Your task to perform on an android device: turn off notifications settings in the gmail app Image 0: 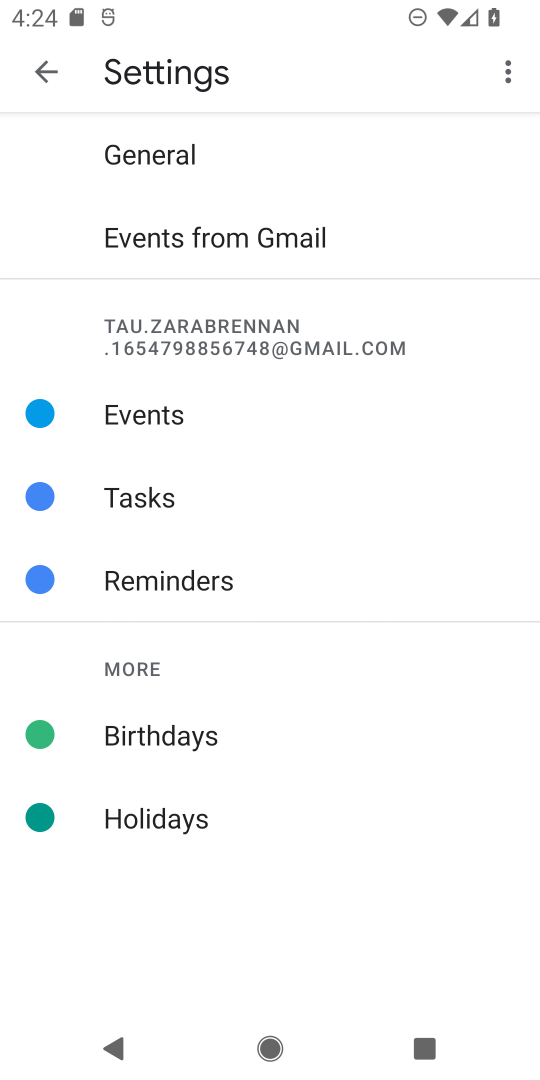
Step 0: press home button
Your task to perform on an android device: turn off notifications settings in the gmail app Image 1: 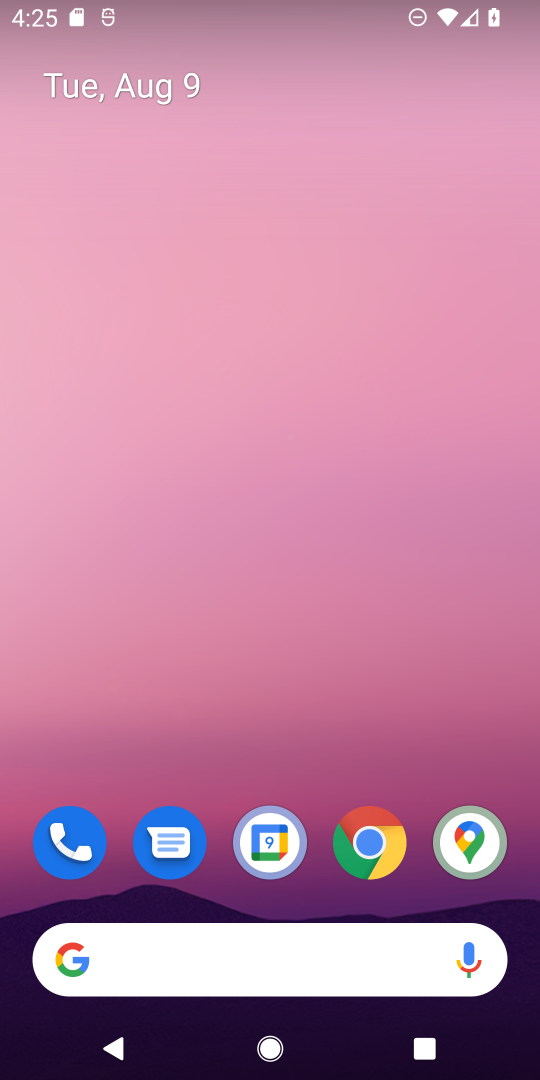
Step 1: drag from (285, 941) to (373, 187)
Your task to perform on an android device: turn off notifications settings in the gmail app Image 2: 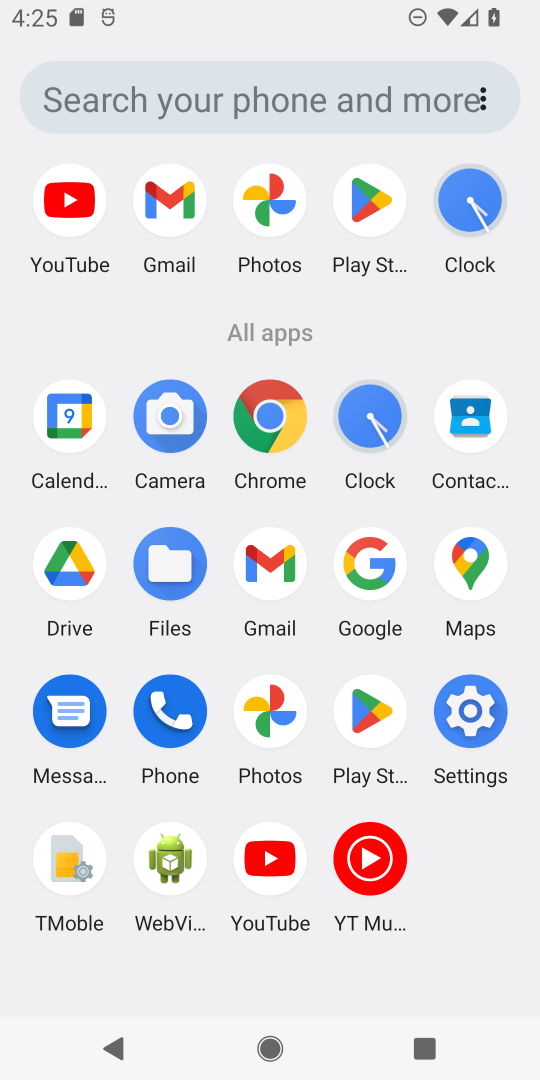
Step 2: click (277, 568)
Your task to perform on an android device: turn off notifications settings in the gmail app Image 3: 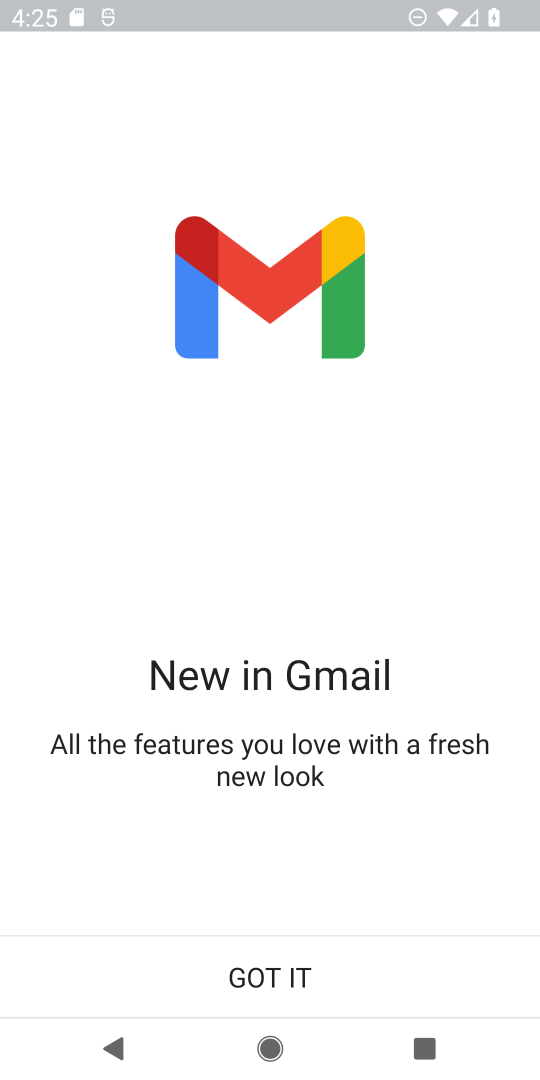
Step 3: click (315, 967)
Your task to perform on an android device: turn off notifications settings in the gmail app Image 4: 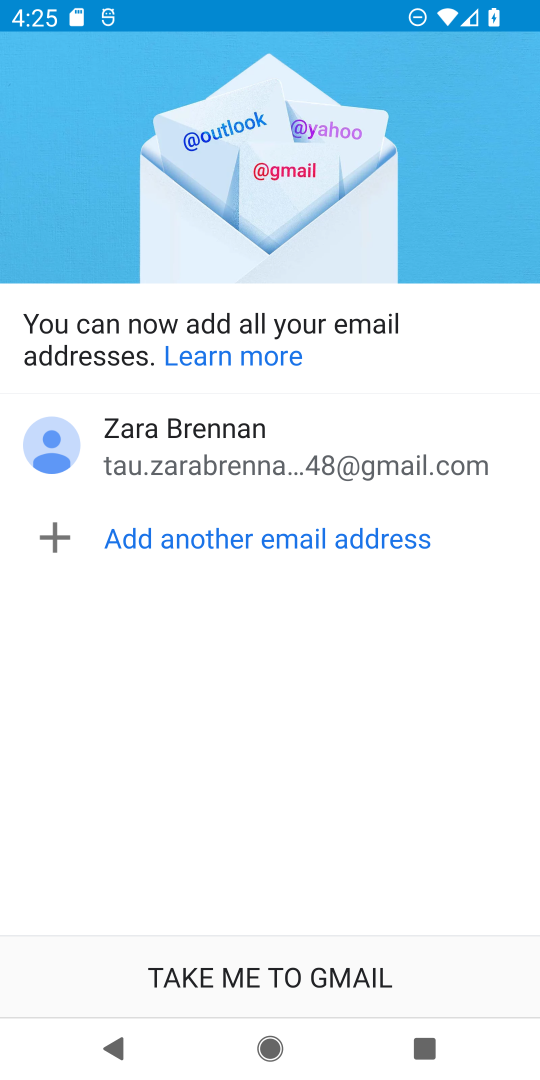
Step 4: click (315, 967)
Your task to perform on an android device: turn off notifications settings in the gmail app Image 5: 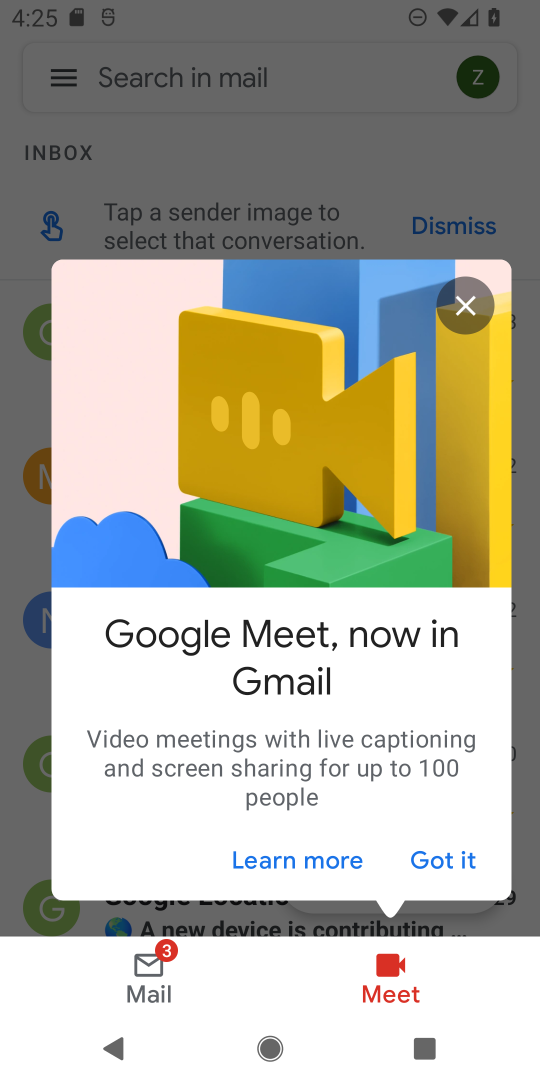
Step 5: click (464, 289)
Your task to perform on an android device: turn off notifications settings in the gmail app Image 6: 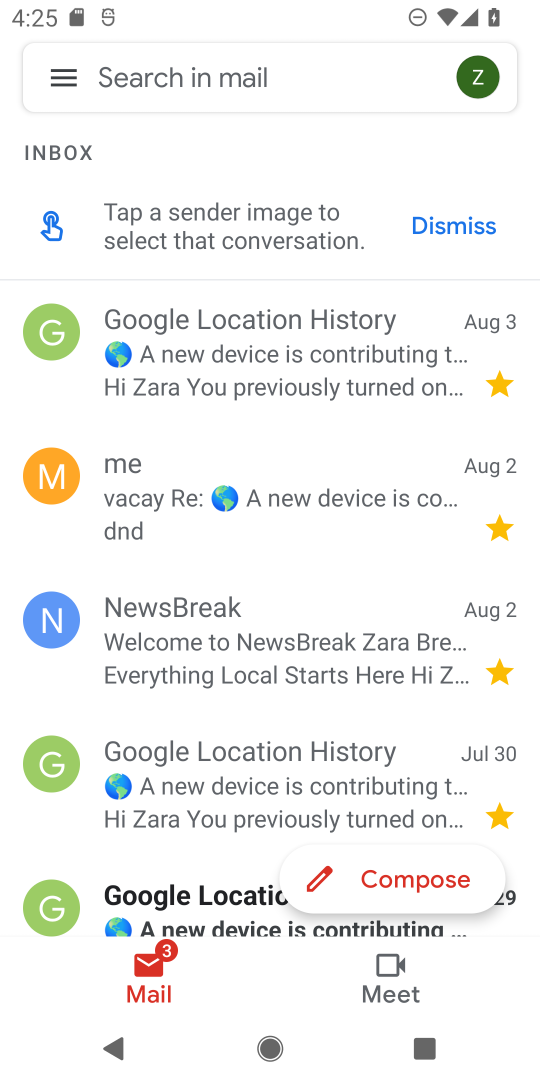
Step 6: click (77, 76)
Your task to perform on an android device: turn off notifications settings in the gmail app Image 7: 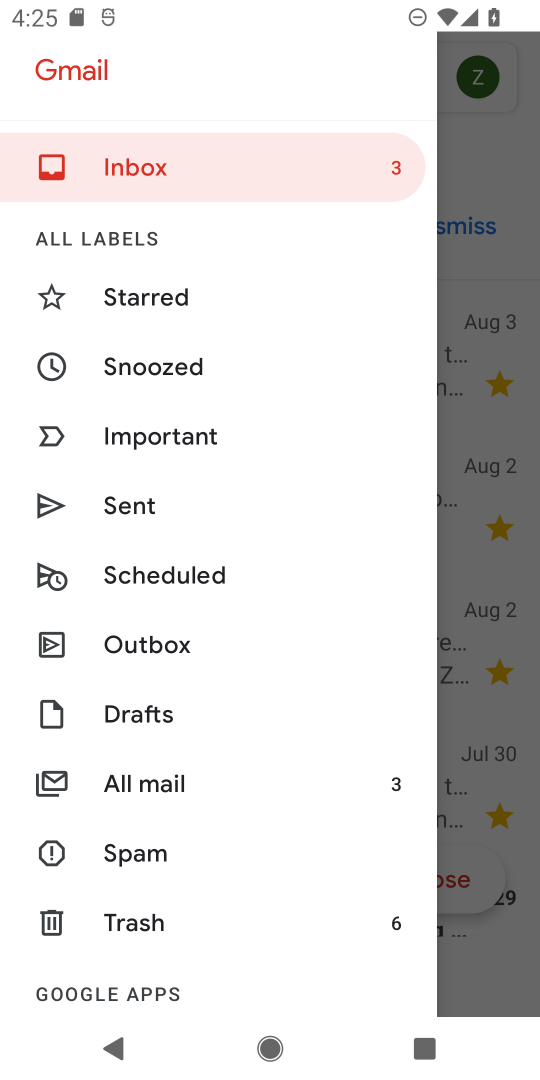
Step 7: drag from (275, 940) to (263, 286)
Your task to perform on an android device: turn off notifications settings in the gmail app Image 8: 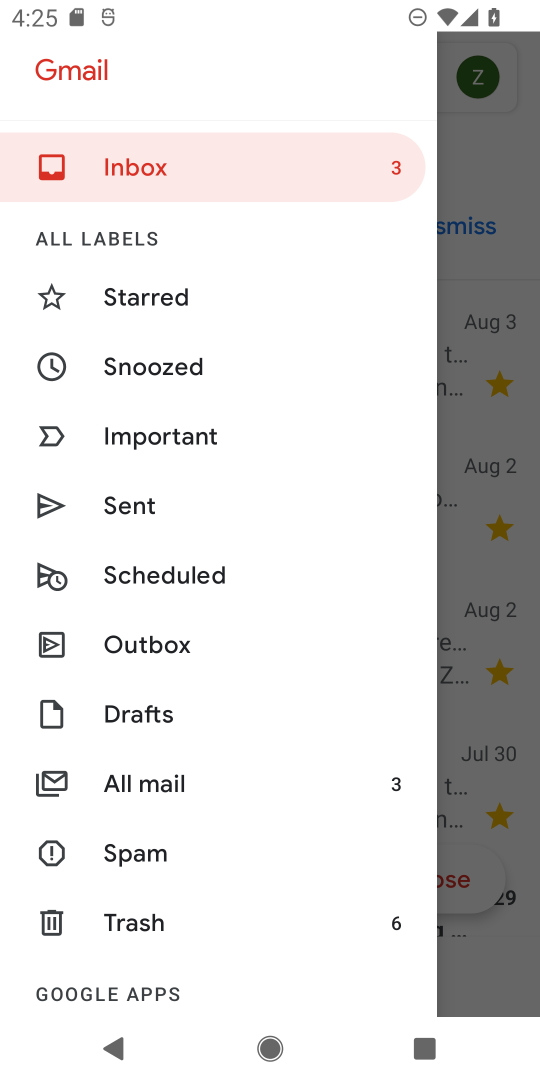
Step 8: drag from (284, 889) to (286, 248)
Your task to perform on an android device: turn off notifications settings in the gmail app Image 9: 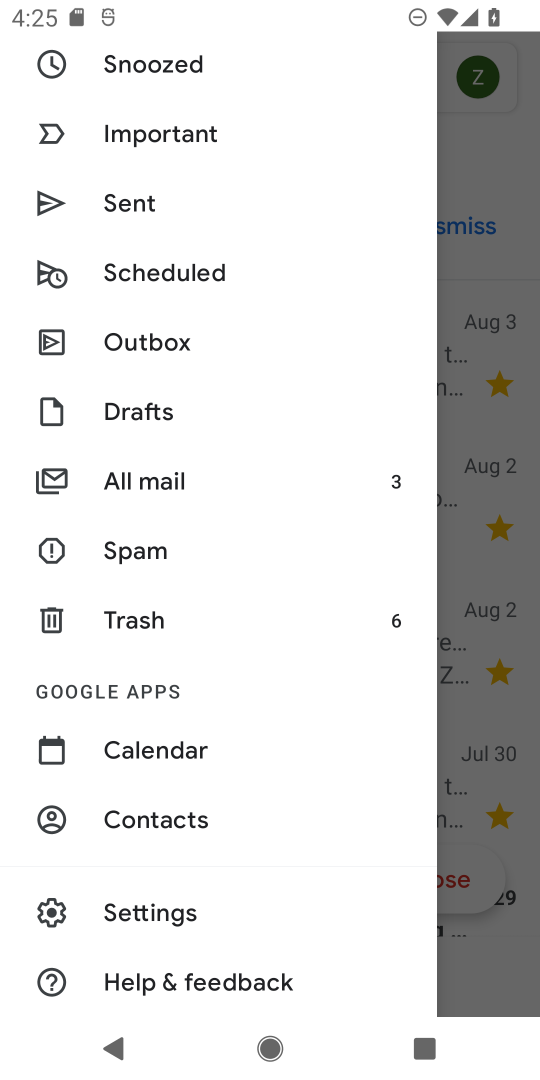
Step 9: click (191, 922)
Your task to perform on an android device: turn off notifications settings in the gmail app Image 10: 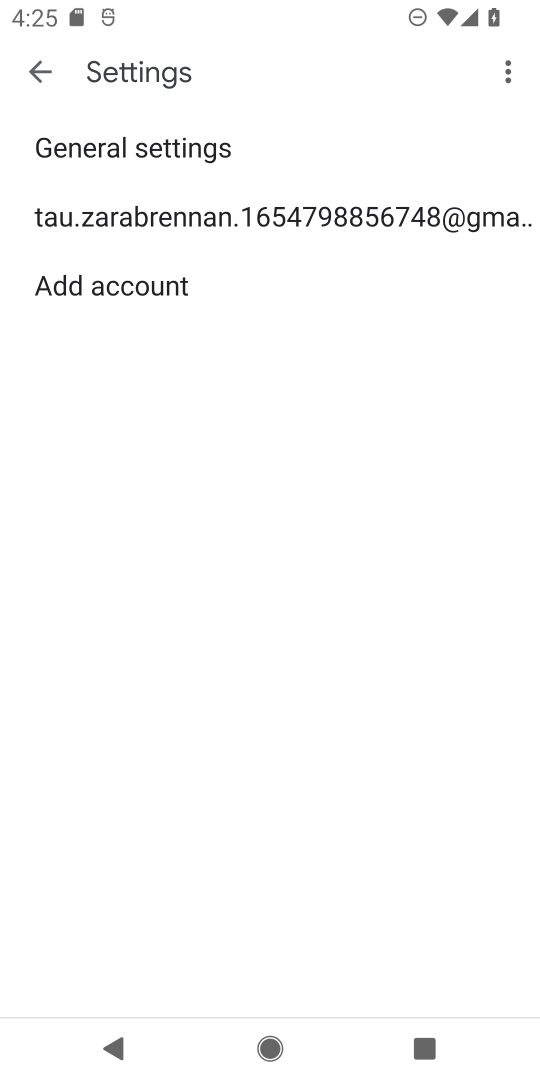
Step 10: click (400, 226)
Your task to perform on an android device: turn off notifications settings in the gmail app Image 11: 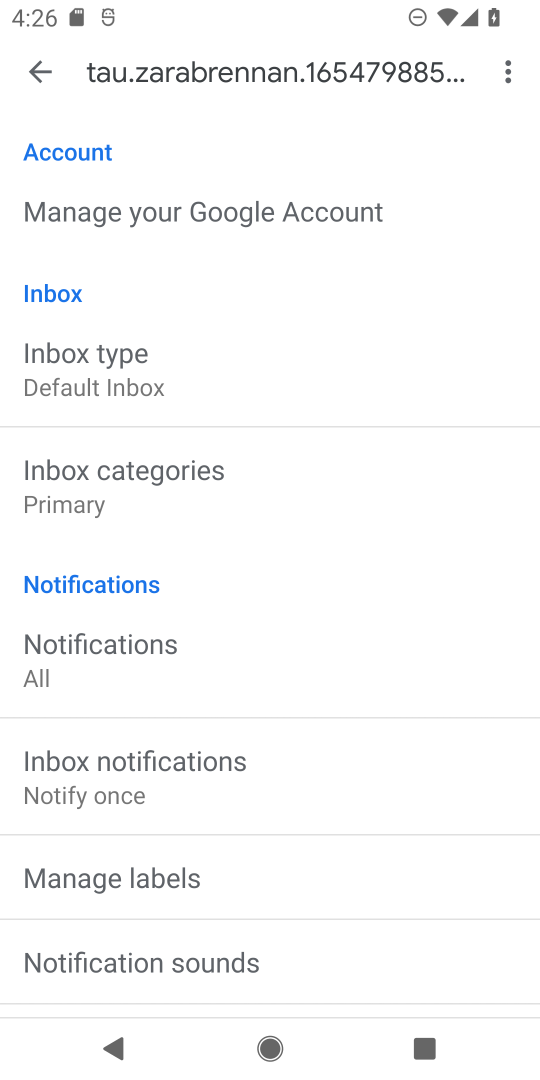
Step 11: drag from (312, 960) to (261, 162)
Your task to perform on an android device: turn off notifications settings in the gmail app Image 12: 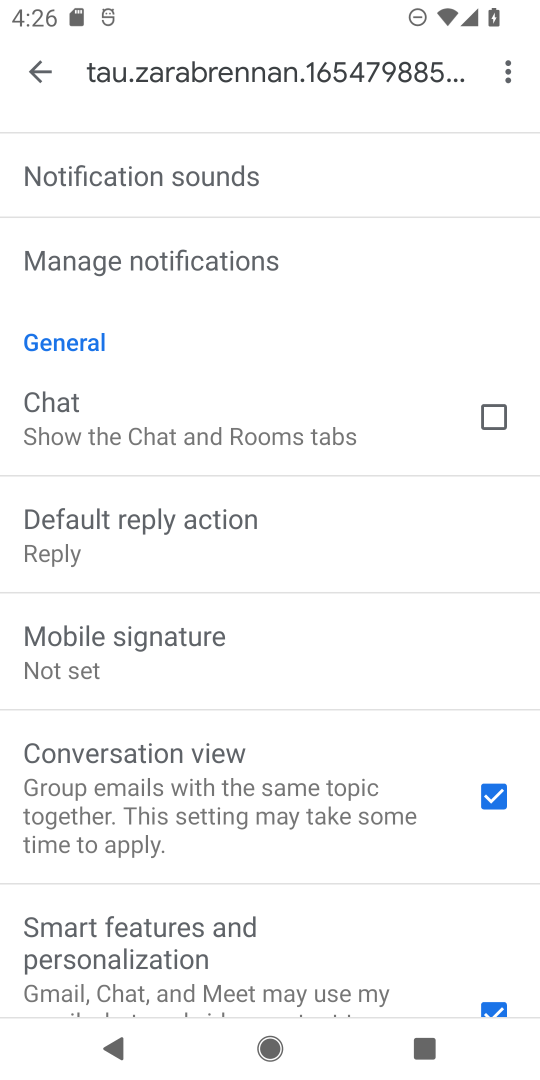
Step 12: click (186, 259)
Your task to perform on an android device: turn off notifications settings in the gmail app Image 13: 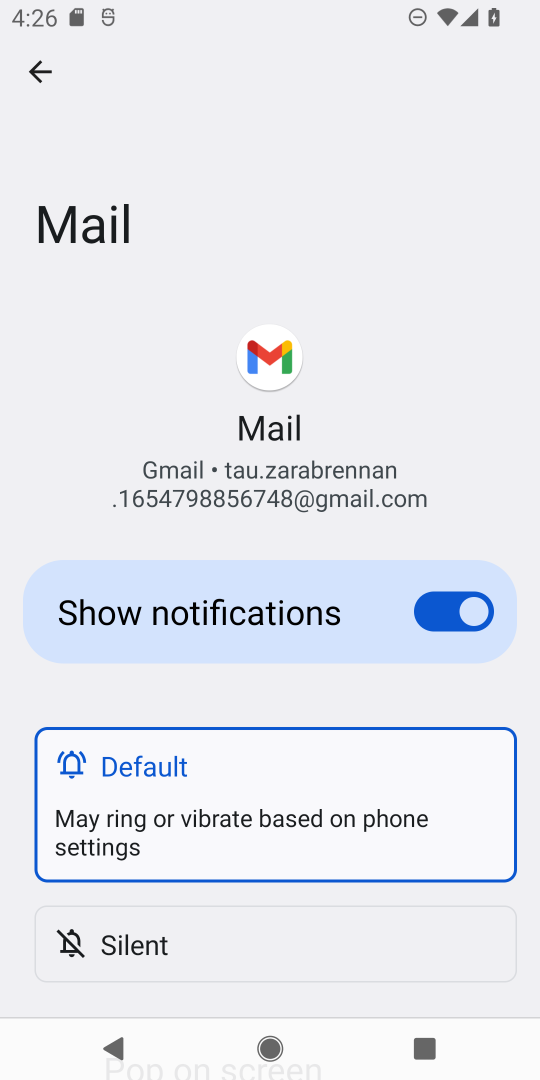
Step 13: click (437, 605)
Your task to perform on an android device: turn off notifications settings in the gmail app Image 14: 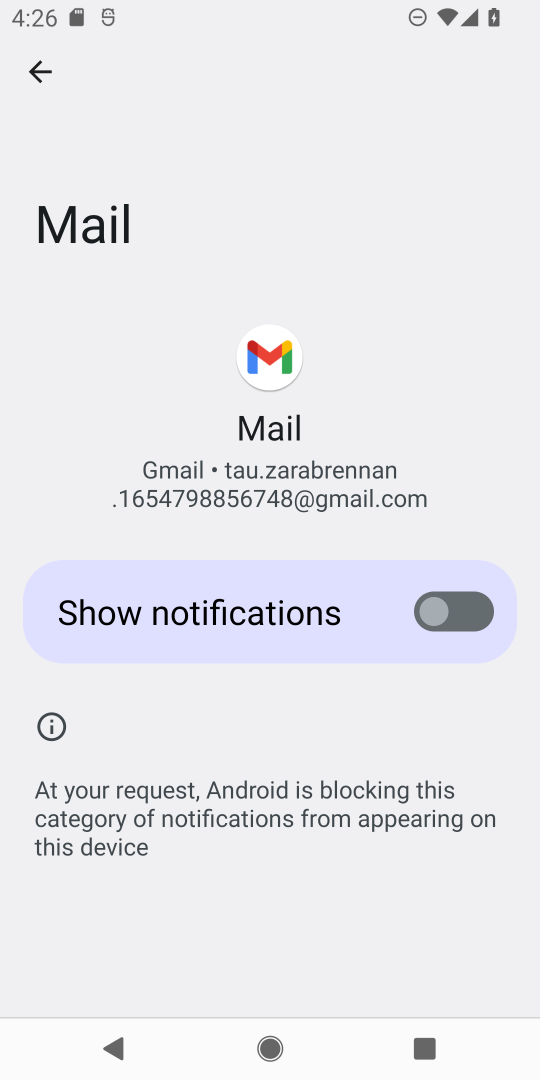
Step 14: task complete